Your task to perform on an android device: change keyboard looks Image 0: 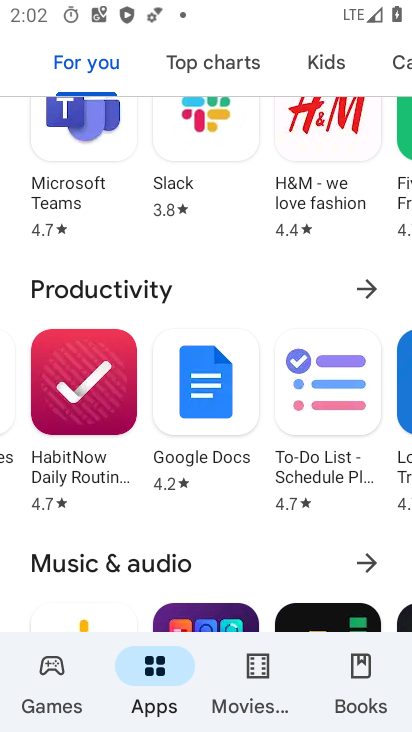
Step 0: press home button
Your task to perform on an android device: change keyboard looks Image 1: 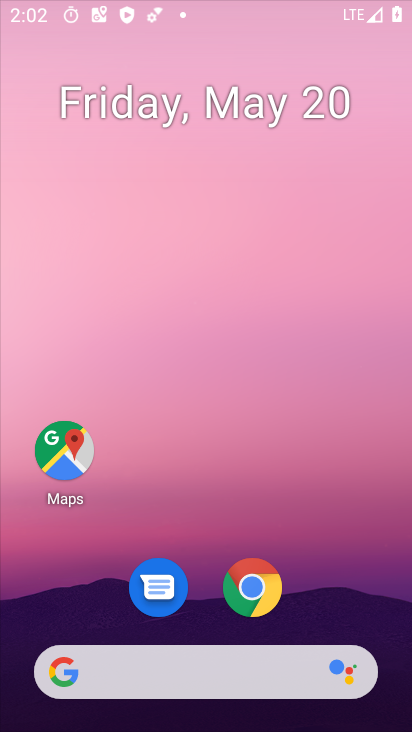
Step 1: drag from (292, 549) to (329, 100)
Your task to perform on an android device: change keyboard looks Image 2: 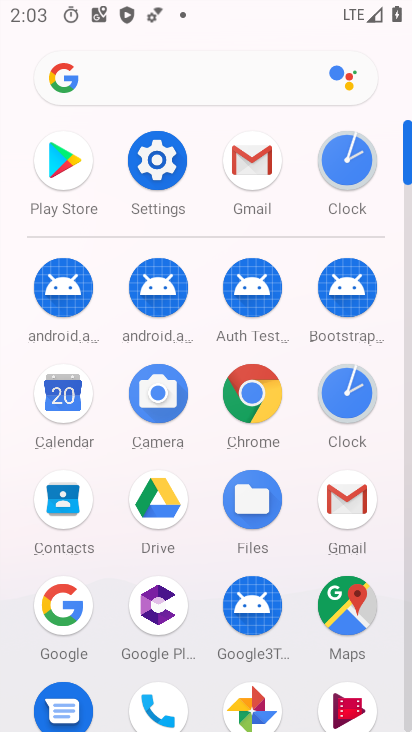
Step 2: click (159, 132)
Your task to perform on an android device: change keyboard looks Image 3: 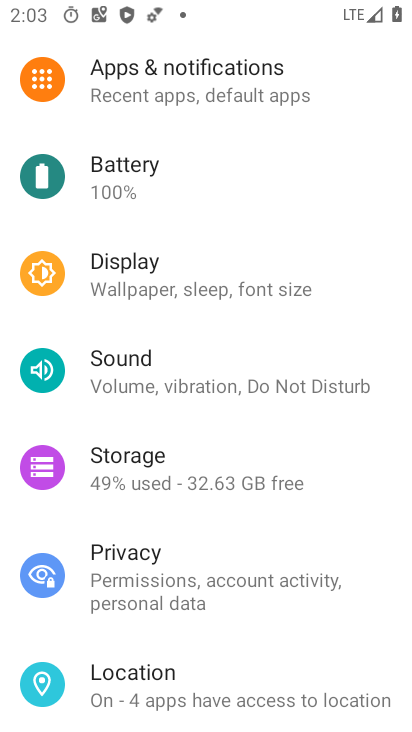
Step 3: drag from (226, 538) to (248, 393)
Your task to perform on an android device: change keyboard looks Image 4: 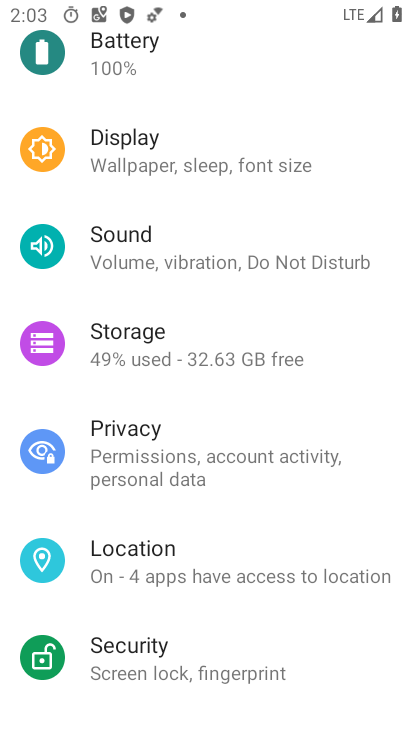
Step 4: drag from (266, 568) to (407, 422)
Your task to perform on an android device: change keyboard looks Image 5: 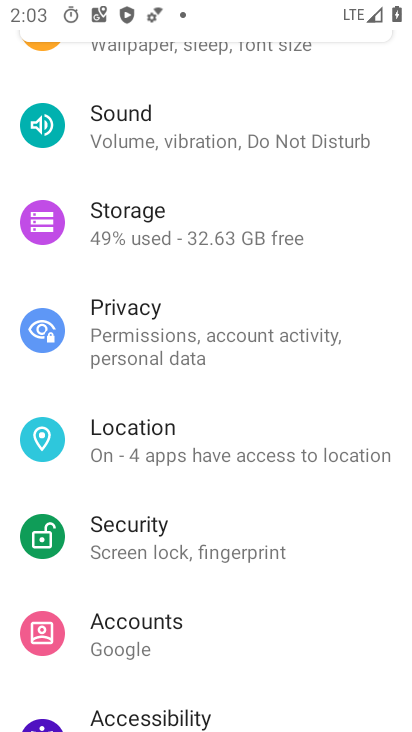
Step 5: drag from (290, 510) to (320, 188)
Your task to perform on an android device: change keyboard looks Image 6: 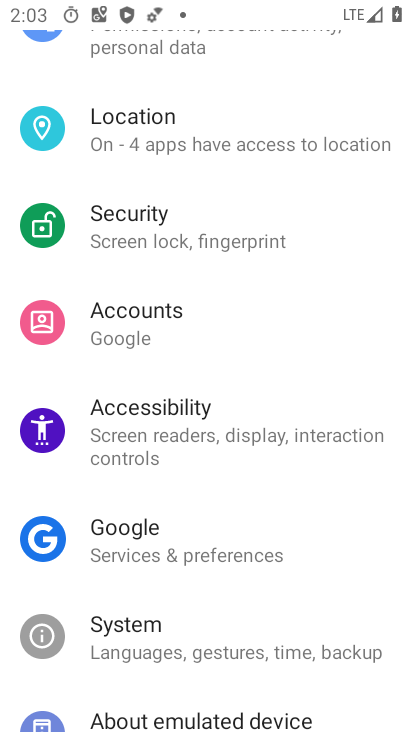
Step 6: drag from (297, 515) to (286, 204)
Your task to perform on an android device: change keyboard looks Image 7: 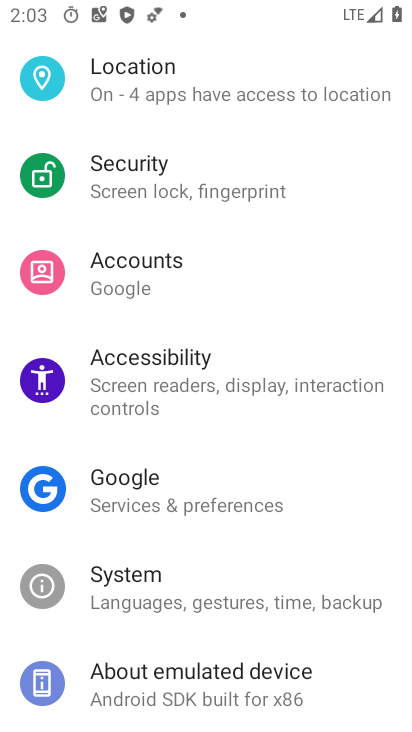
Step 7: click (132, 588)
Your task to perform on an android device: change keyboard looks Image 8: 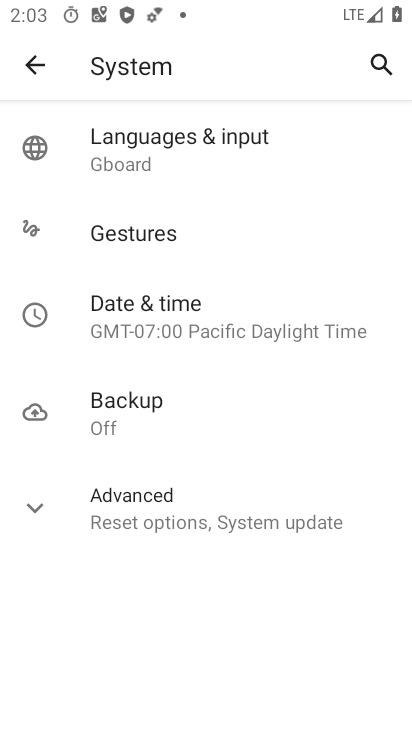
Step 8: click (131, 137)
Your task to perform on an android device: change keyboard looks Image 9: 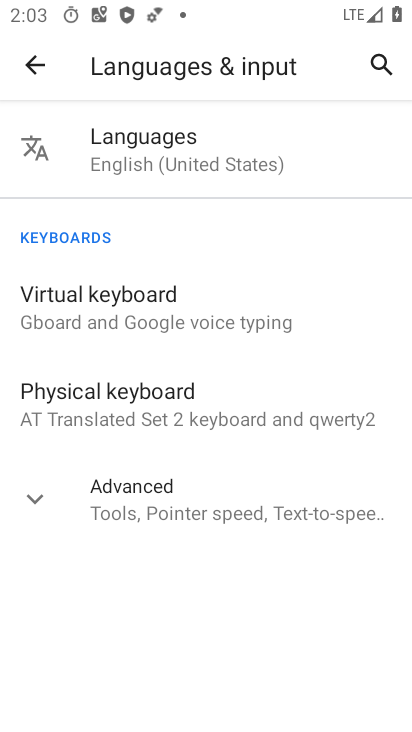
Step 9: click (165, 308)
Your task to perform on an android device: change keyboard looks Image 10: 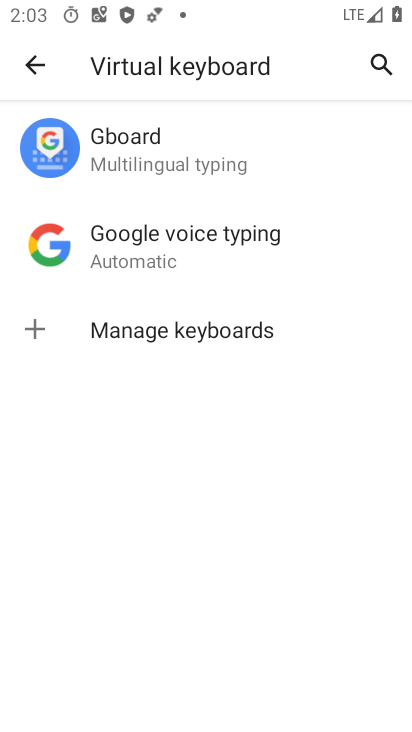
Step 10: click (172, 172)
Your task to perform on an android device: change keyboard looks Image 11: 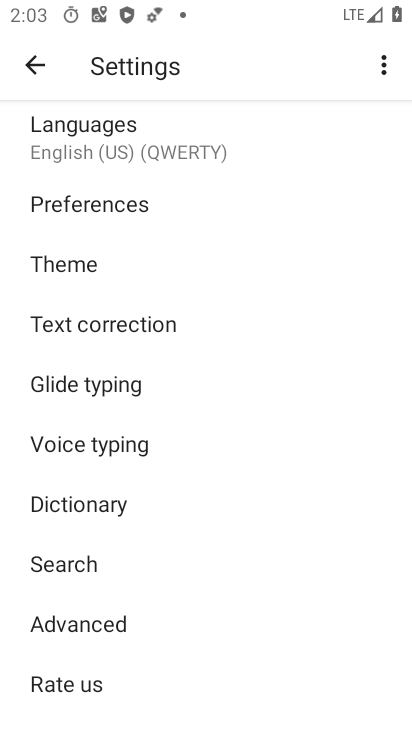
Step 11: click (83, 276)
Your task to perform on an android device: change keyboard looks Image 12: 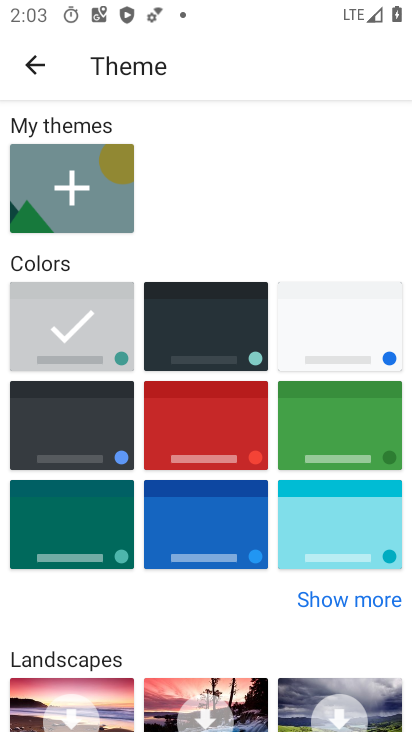
Step 12: click (364, 329)
Your task to perform on an android device: change keyboard looks Image 13: 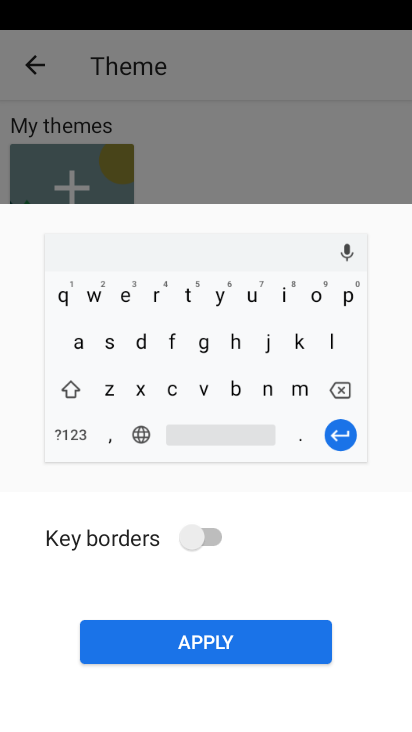
Step 13: click (223, 638)
Your task to perform on an android device: change keyboard looks Image 14: 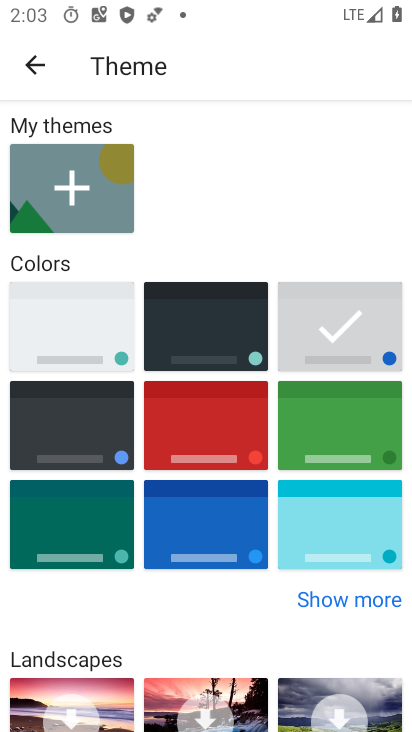
Step 14: task complete